Your task to perform on an android device: turn off smart reply in the gmail app Image 0: 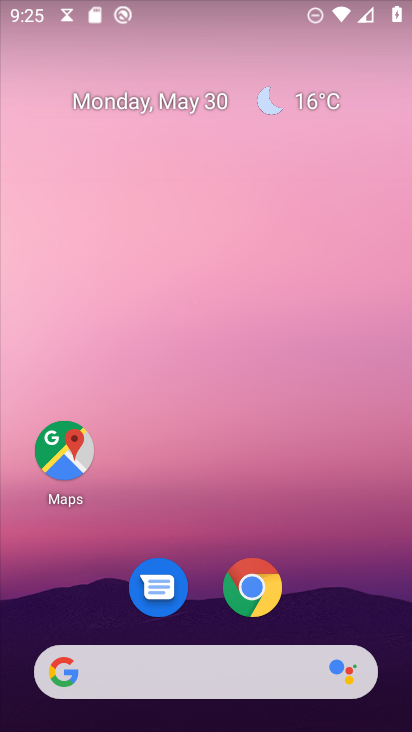
Step 0: press home button
Your task to perform on an android device: turn off smart reply in the gmail app Image 1: 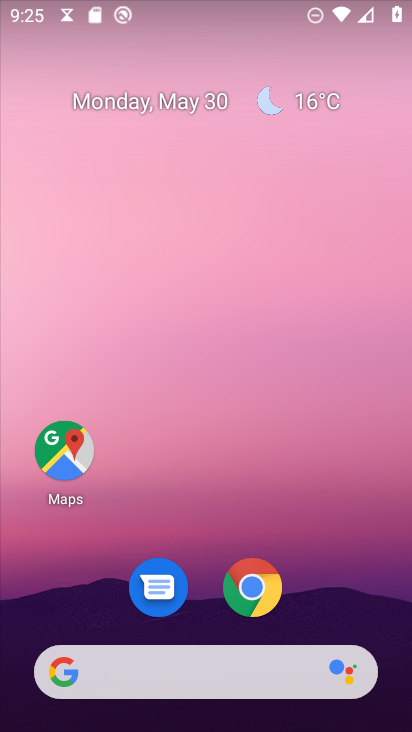
Step 1: drag from (196, 685) to (310, 137)
Your task to perform on an android device: turn off smart reply in the gmail app Image 2: 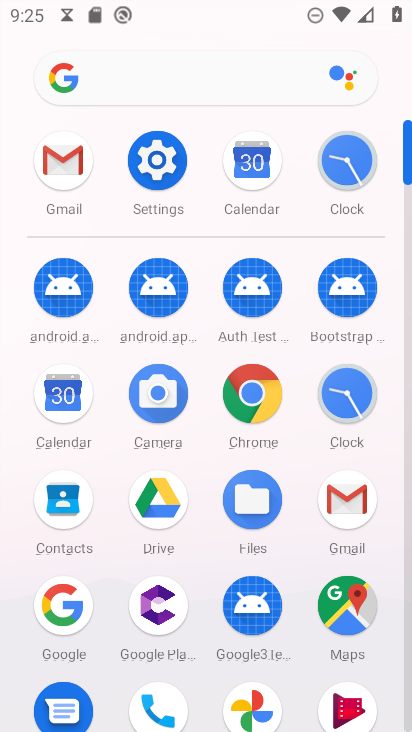
Step 2: click (65, 167)
Your task to perform on an android device: turn off smart reply in the gmail app Image 3: 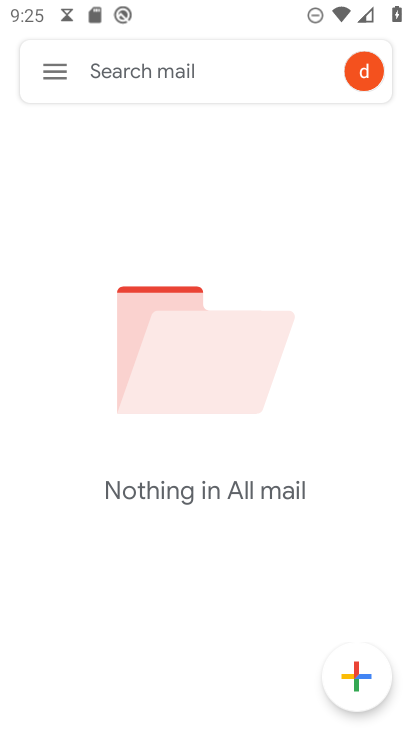
Step 3: click (45, 69)
Your task to perform on an android device: turn off smart reply in the gmail app Image 4: 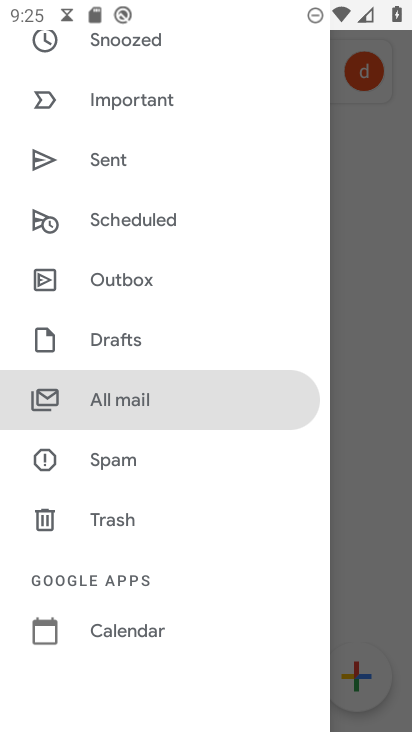
Step 4: drag from (217, 631) to (262, 204)
Your task to perform on an android device: turn off smart reply in the gmail app Image 5: 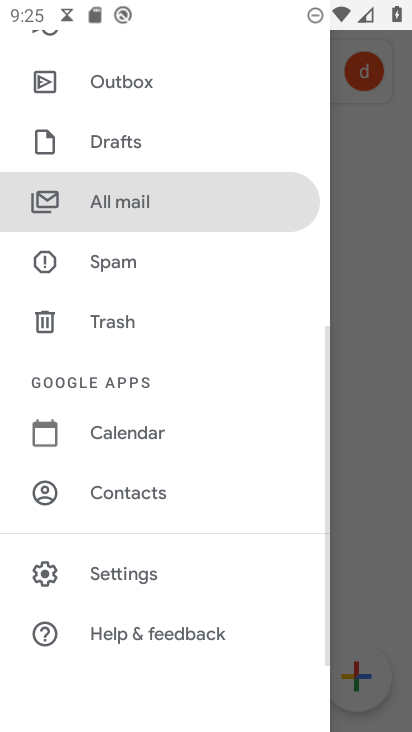
Step 5: click (118, 576)
Your task to perform on an android device: turn off smart reply in the gmail app Image 6: 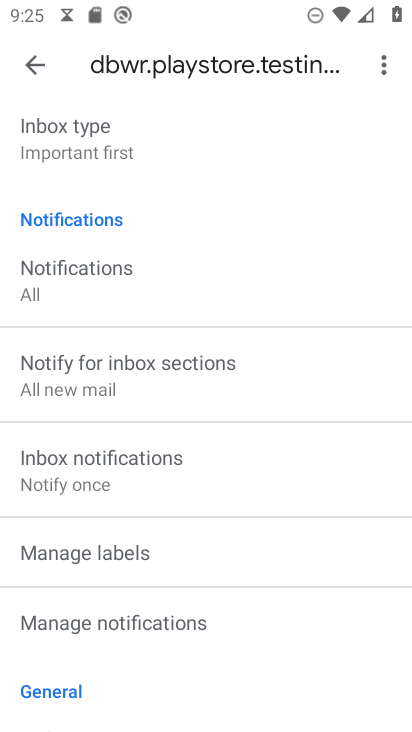
Step 6: drag from (222, 647) to (287, 90)
Your task to perform on an android device: turn off smart reply in the gmail app Image 7: 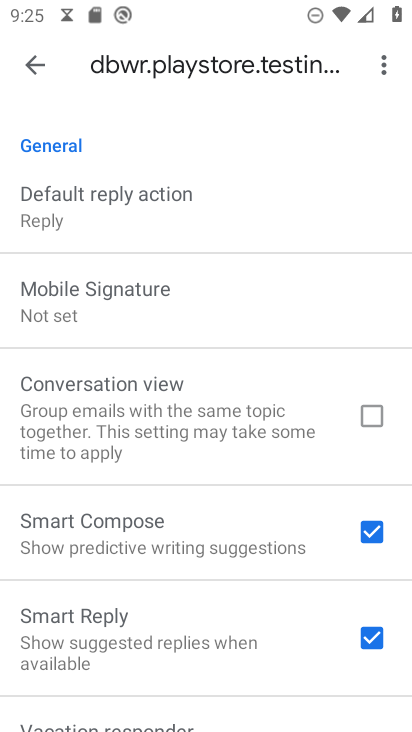
Step 7: click (382, 638)
Your task to perform on an android device: turn off smart reply in the gmail app Image 8: 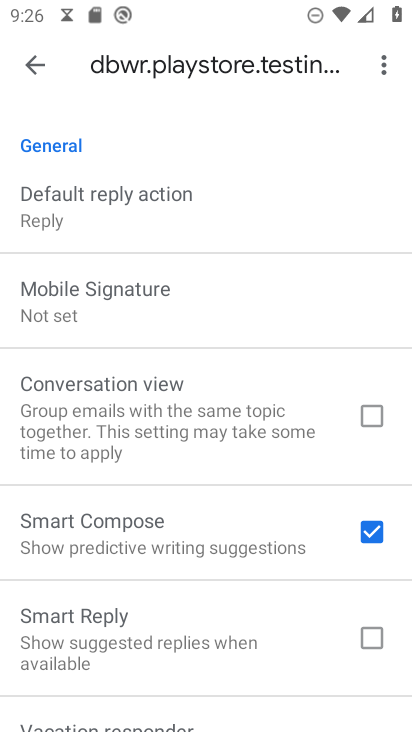
Step 8: task complete